Your task to perform on an android device: add a contact Image 0: 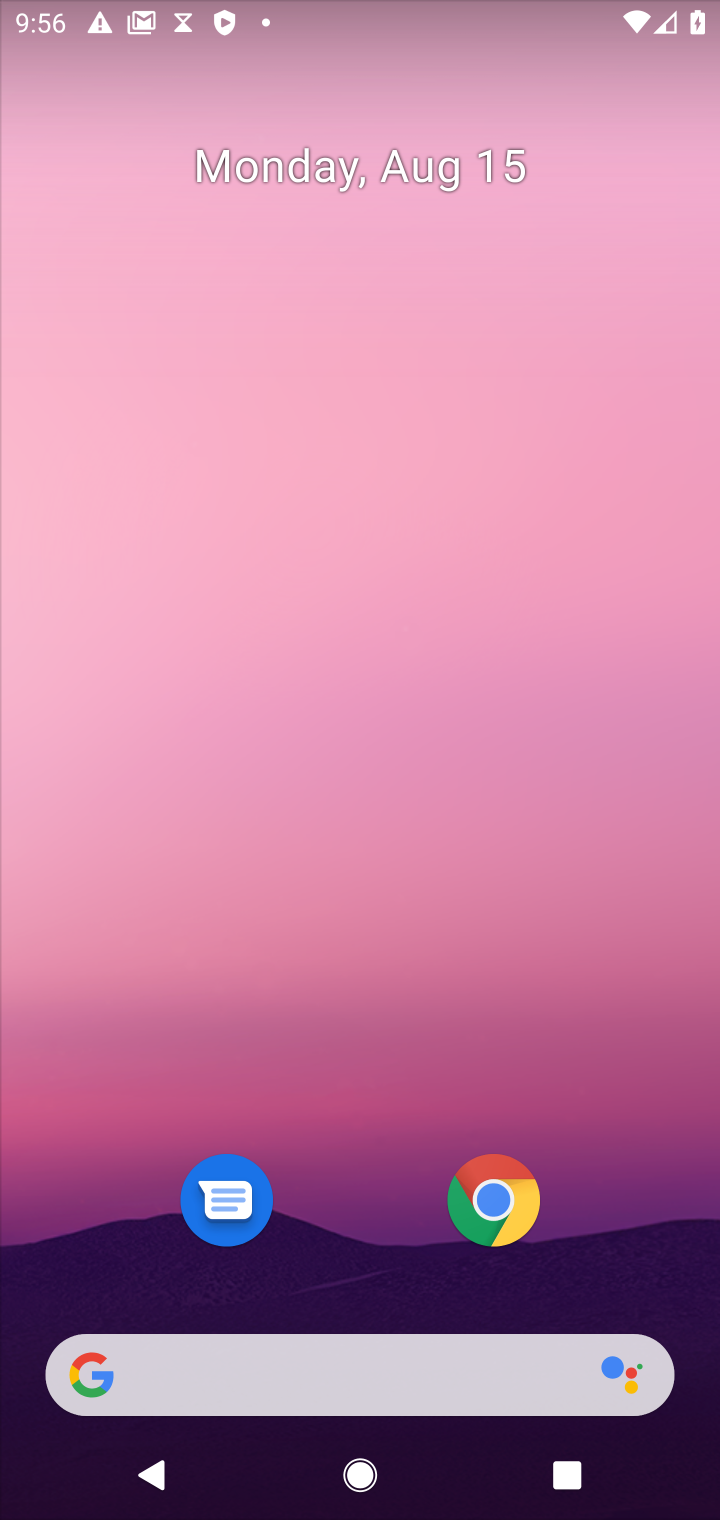
Step 0: drag from (368, 1060) to (368, 335)
Your task to perform on an android device: add a contact Image 1: 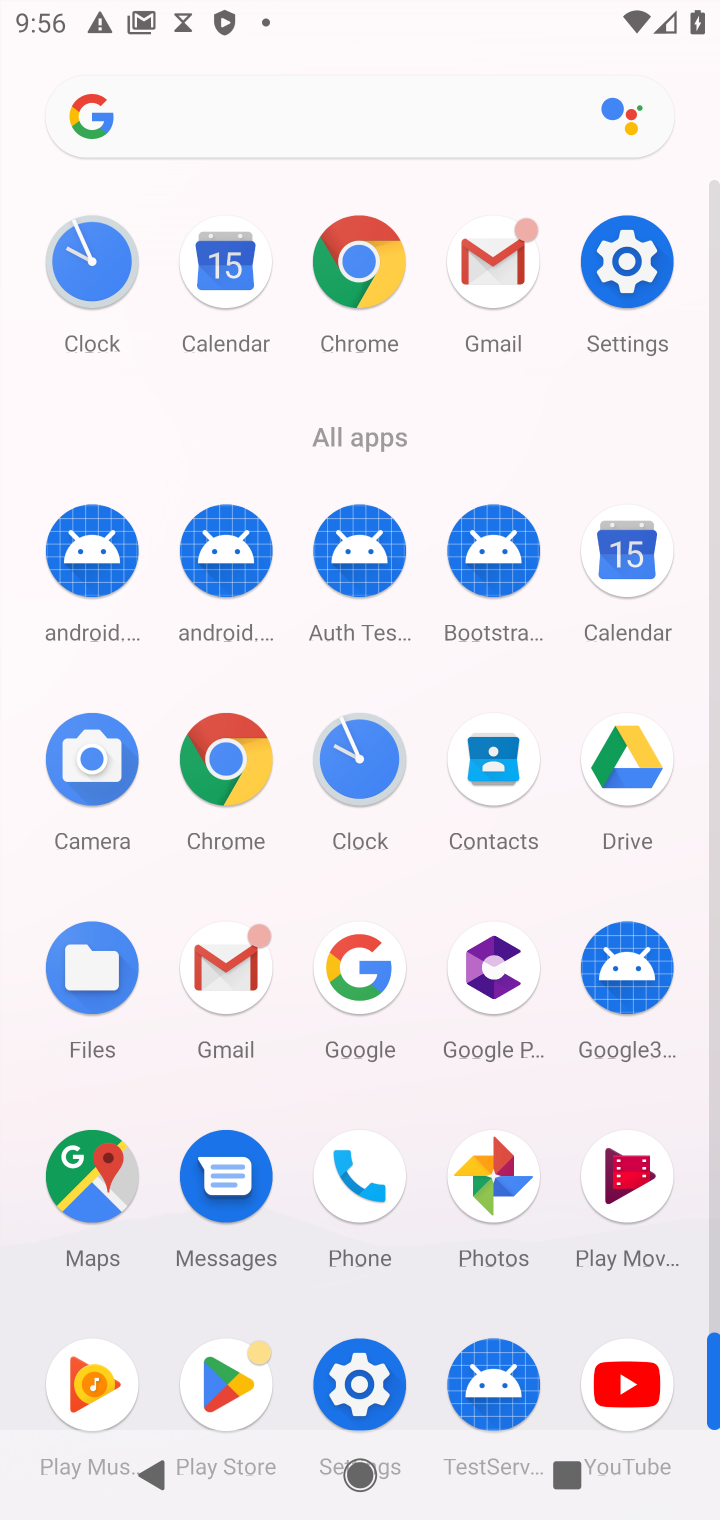
Step 1: click (498, 749)
Your task to perform on an android device: add a contact Image 2: 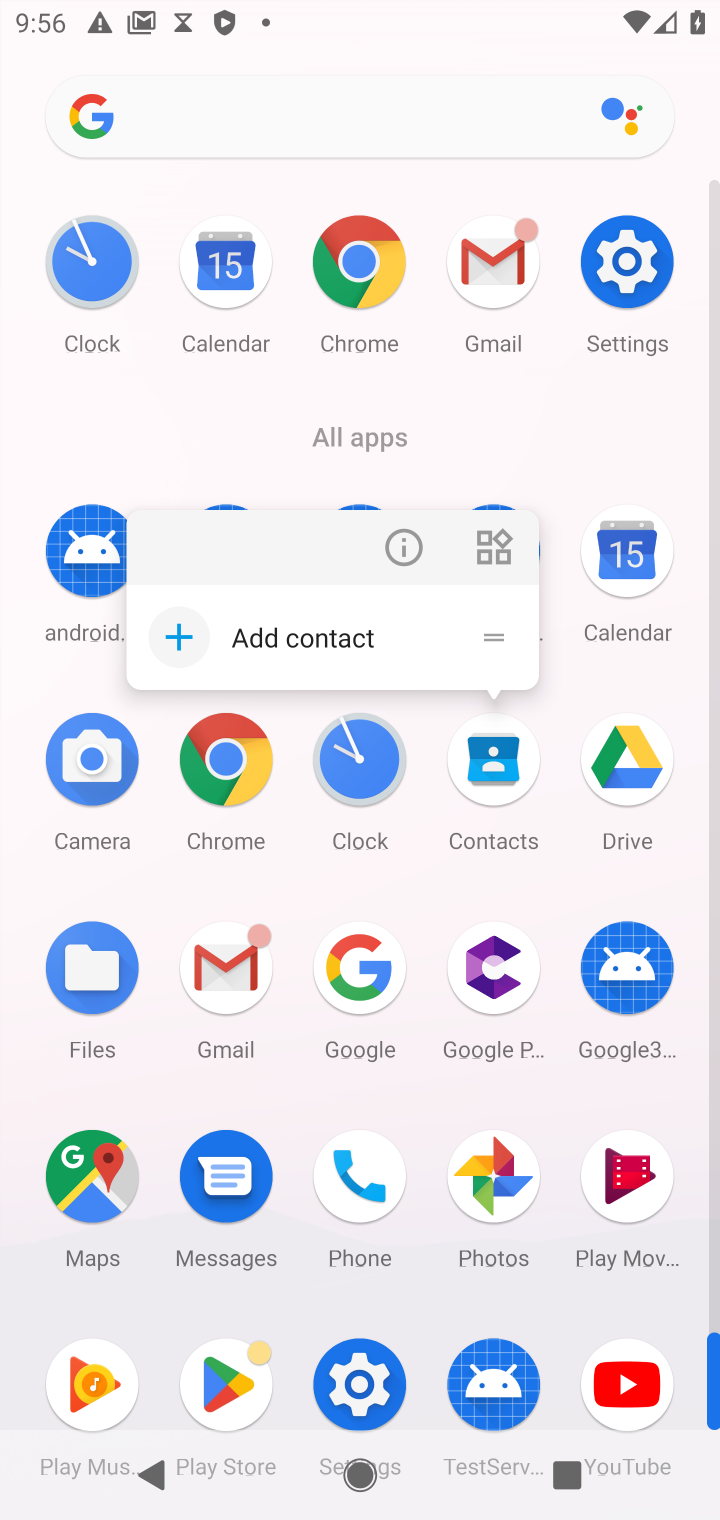
Step 2: click (486, 767)
Your task to perform on an android device: add a contact Image 3: 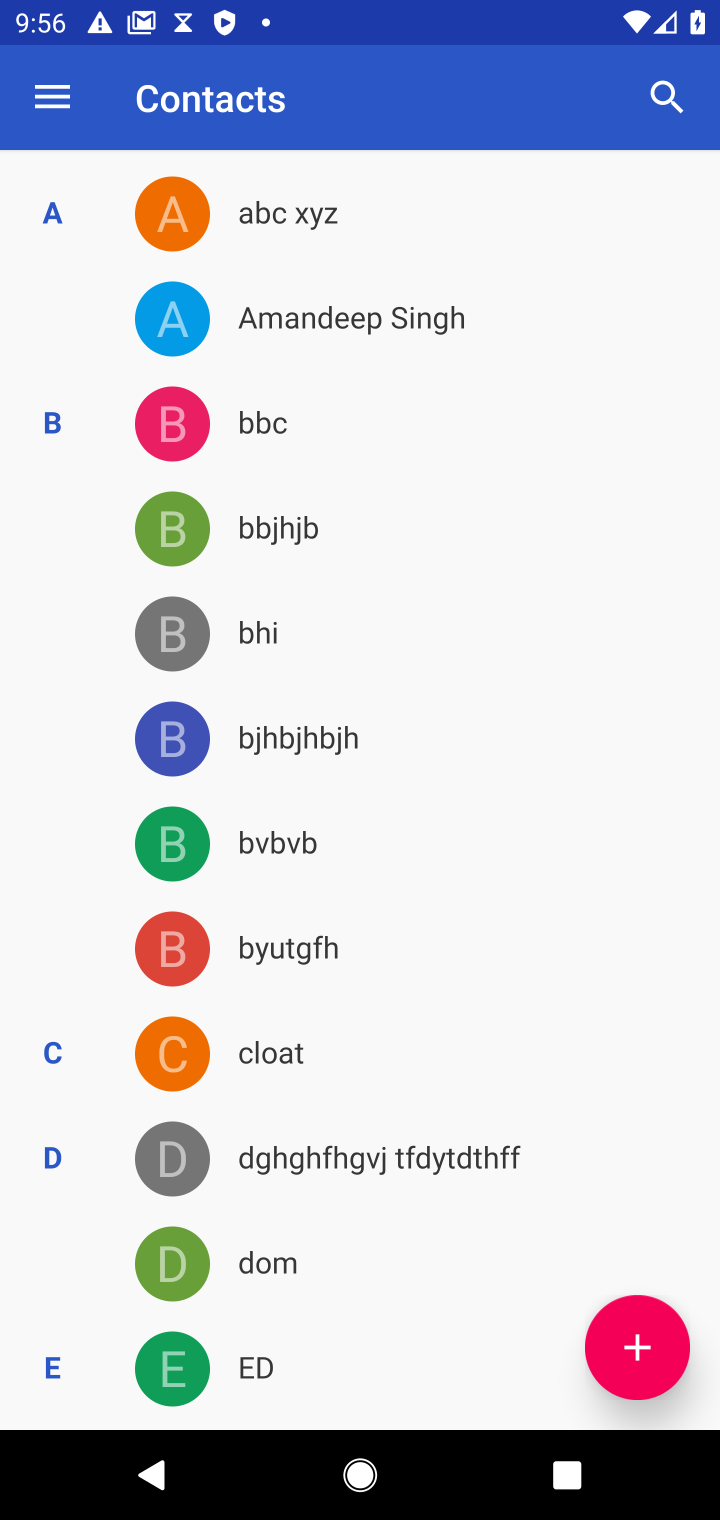
Step 3: click (666, 1330)
Your task to perform on an android device: add a contact Image 4: 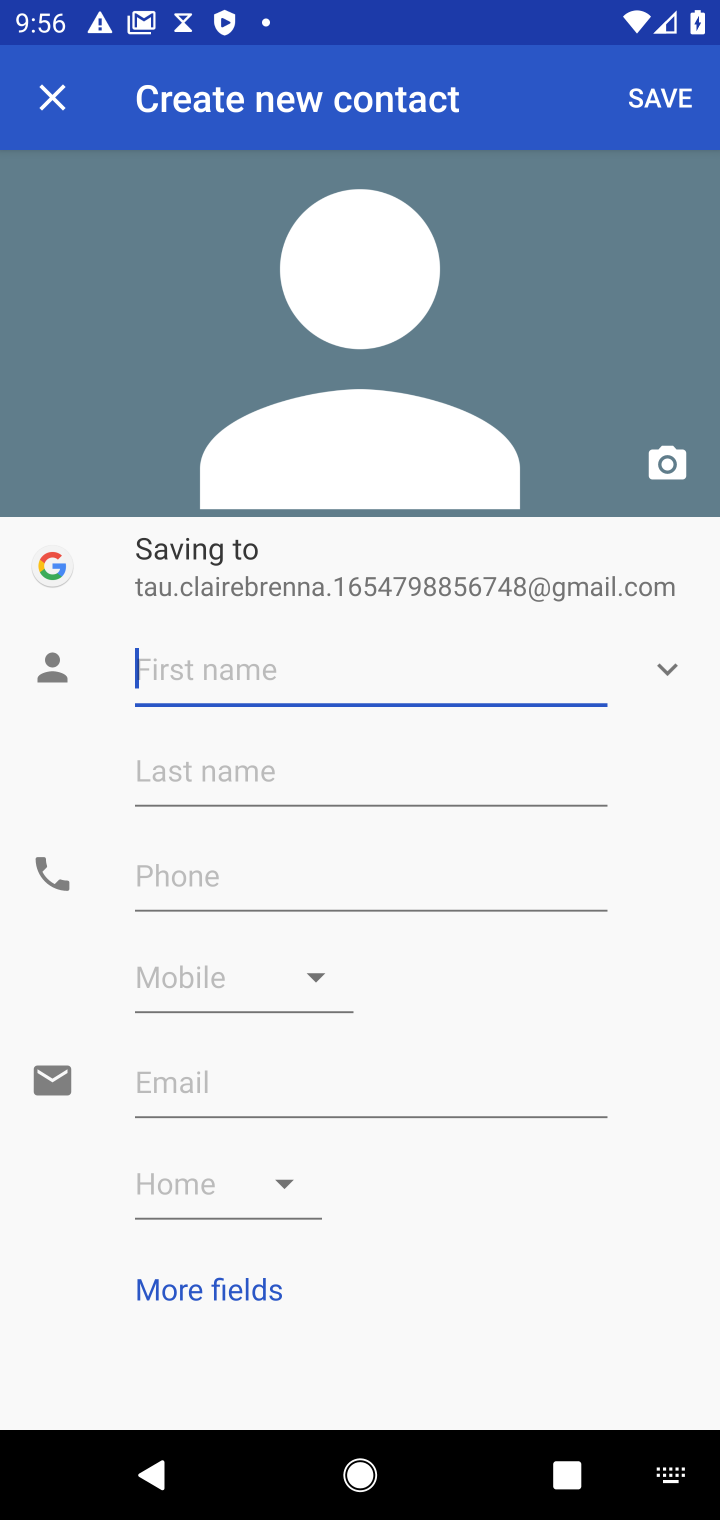
Step 4: type "jgj"
Your task to perform on an android device: add a contact Image 5: 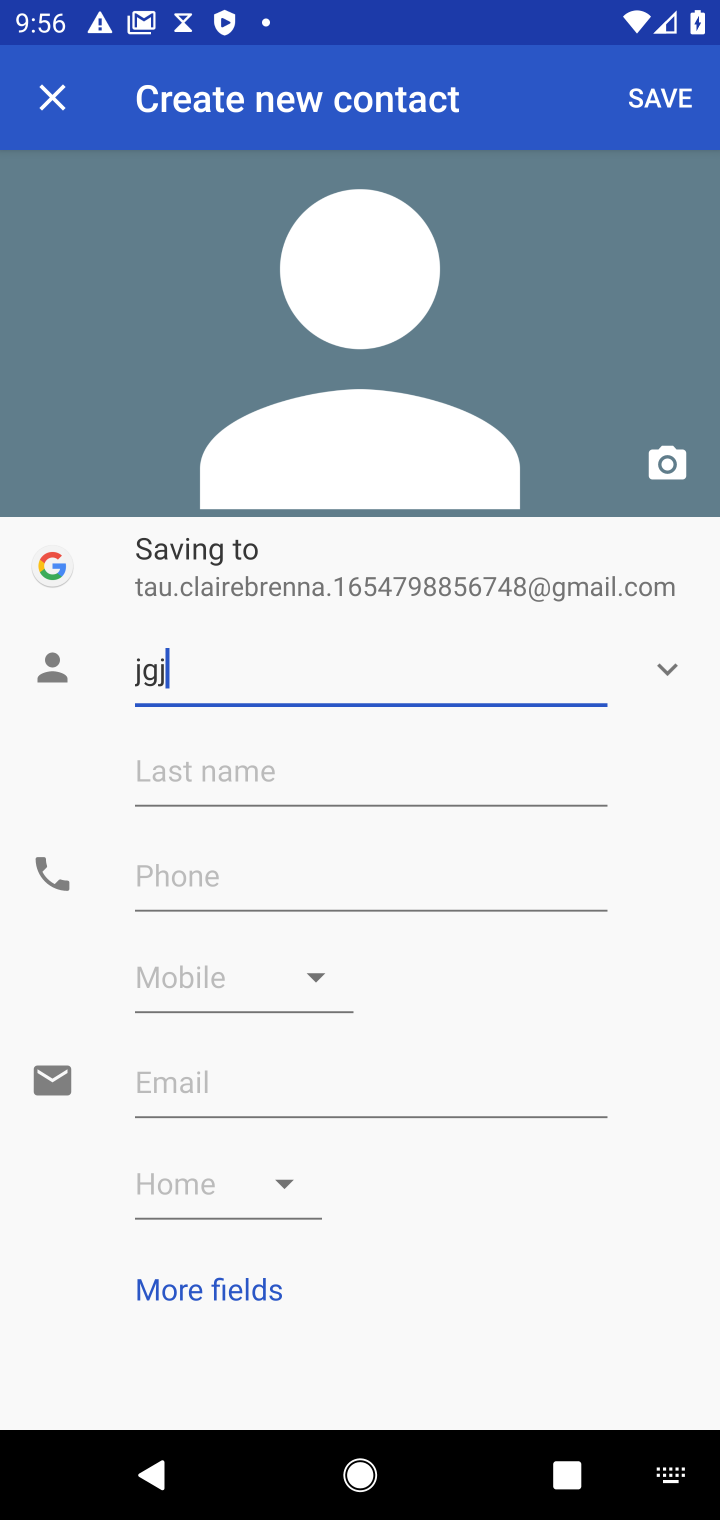
Step 5: click (322, 882)
Your task to perform on an android device: add a contact Image 6: 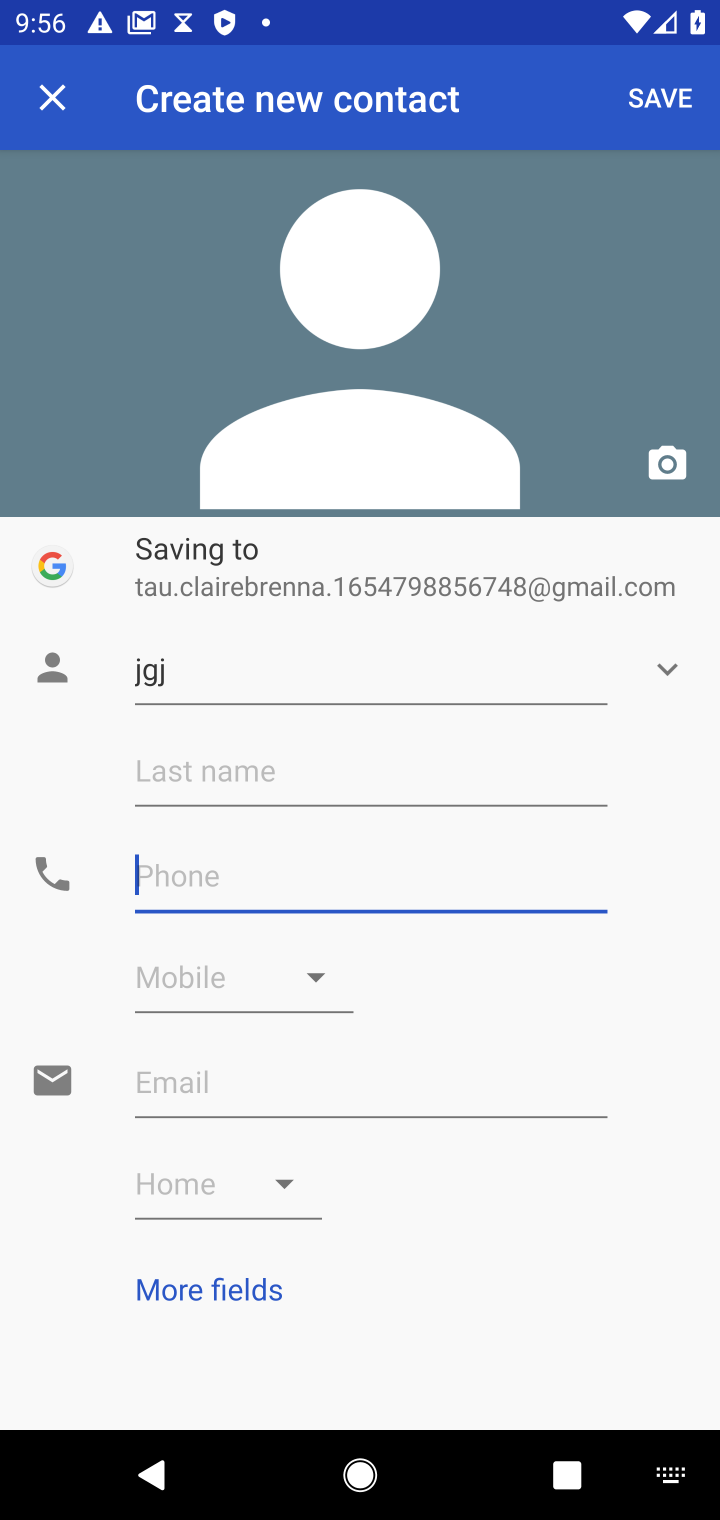
Step 6: type "96786567556"
Your task to perform on an android device: add a contact Image 7: 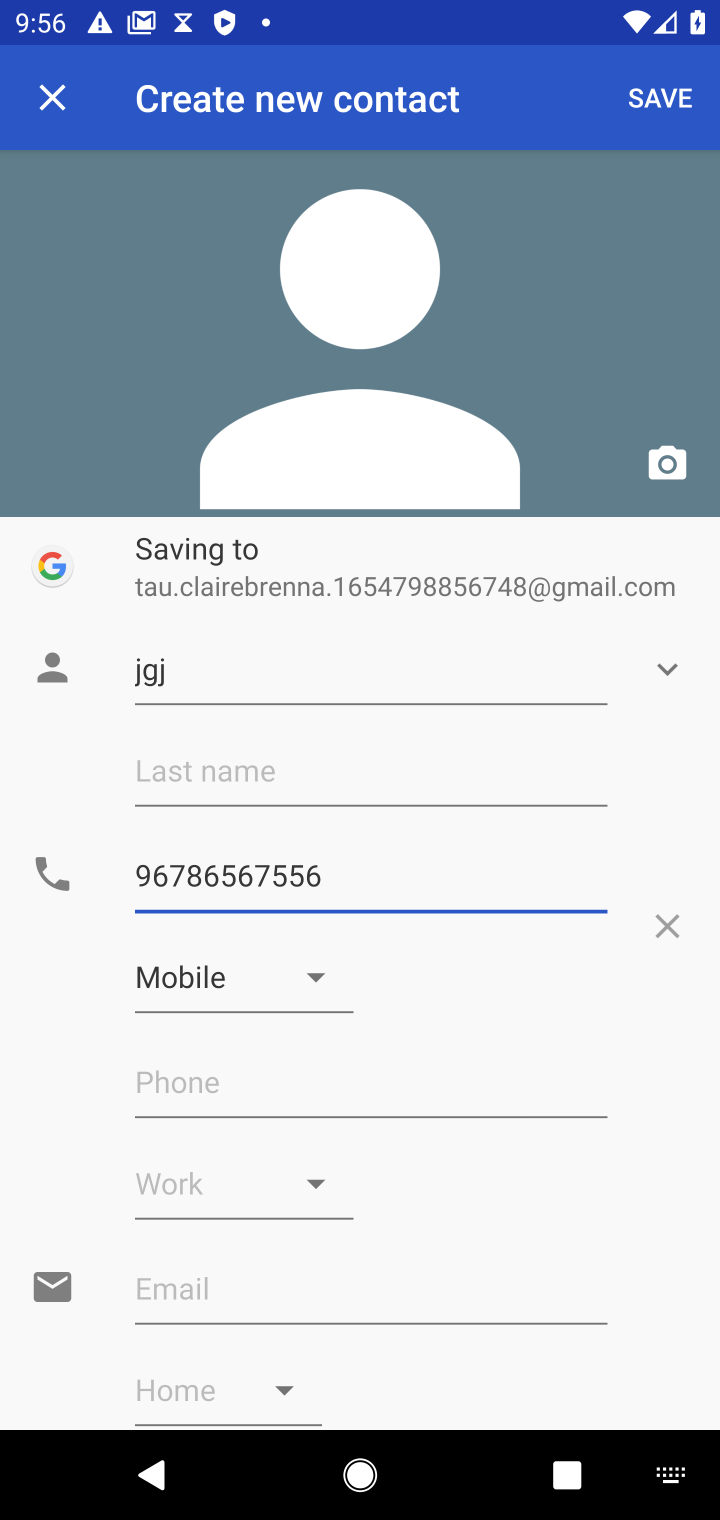
Step 7: click (685, 105)
Your task to perform on an android device: add a contact Image 8: 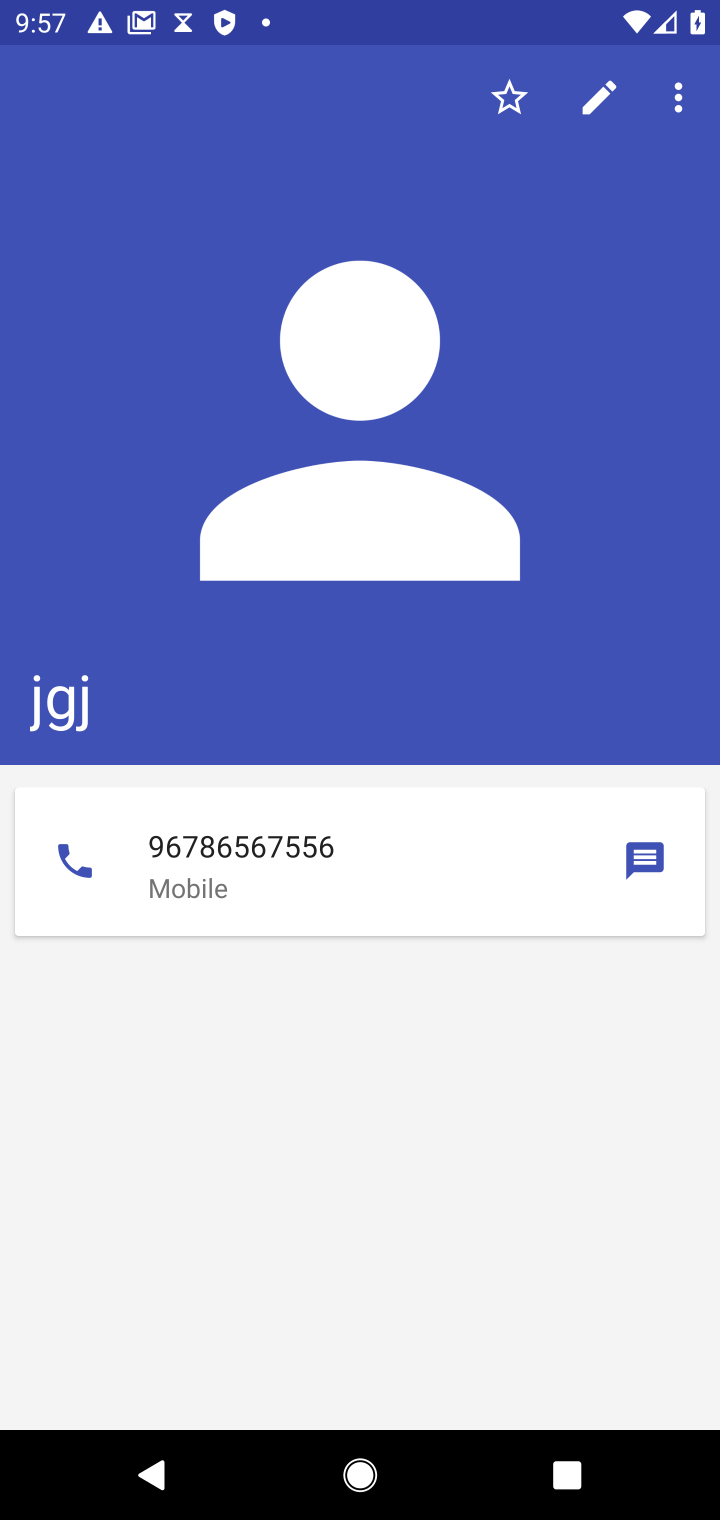
Step 8: task complete